Your task to perform on an android device: turn on the 24-hour format for clock Image 0: 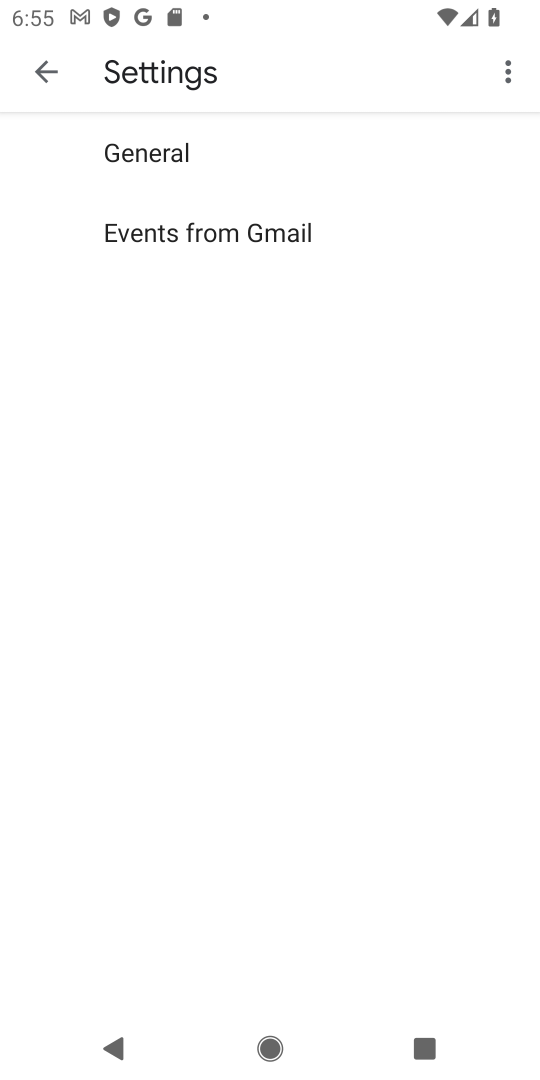
Step 0: click (39, 81)
Your task to perform on an android device: turn on the 24-hour format for clock Image 1: 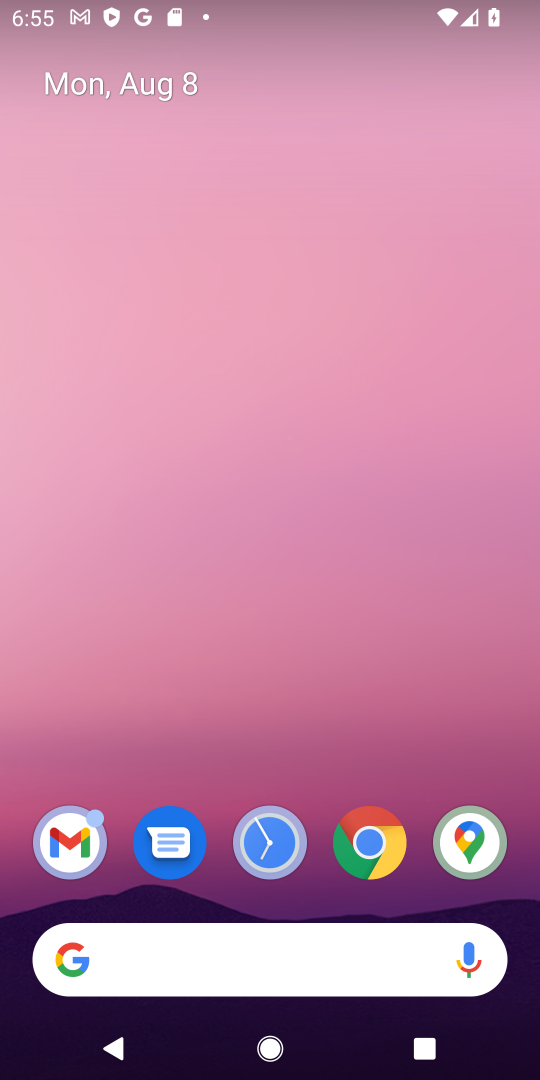
Step 1: drag from (309, 692) to (311, 60)
Your task to perform on an android device: turn on the 24-hour format for clock Image 2: 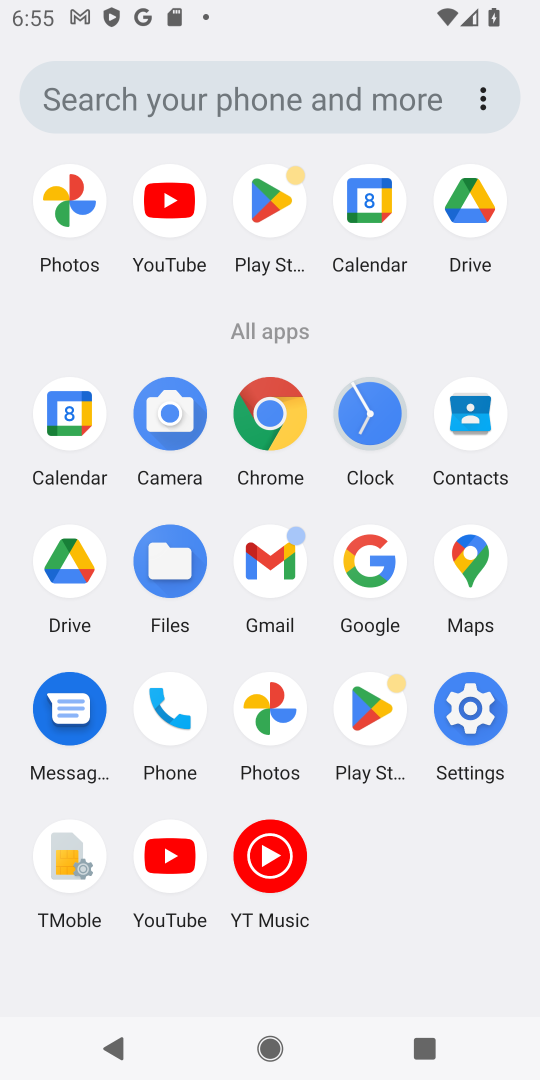
Step 2: click (386, 418)
Your task to perform on an android device: turn on the 24-hour format for clock Image 3: 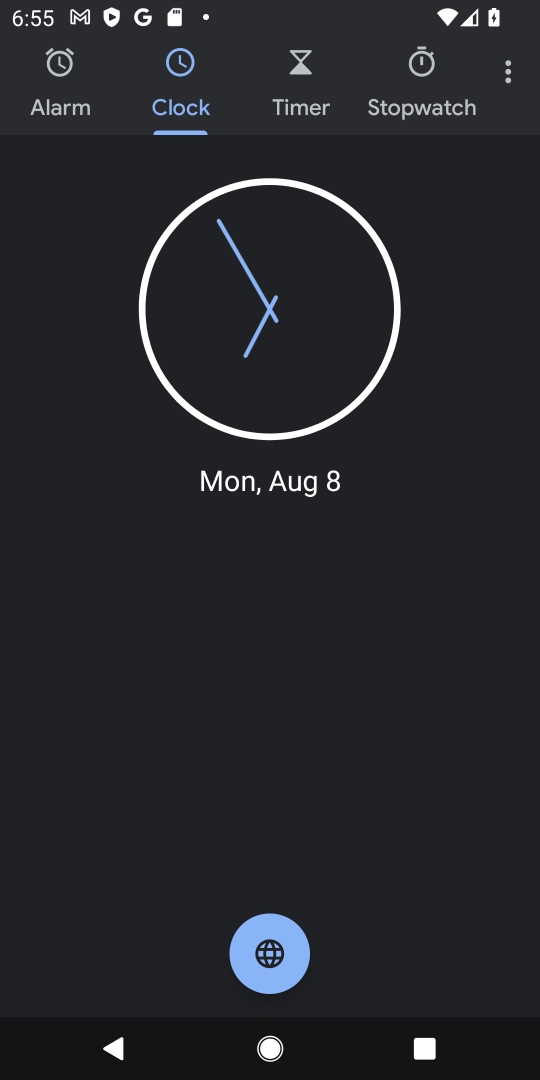
Step 3: click (506, 76)
Your task to perform on an android device: turn on the 24-hour format for clock Image 4: 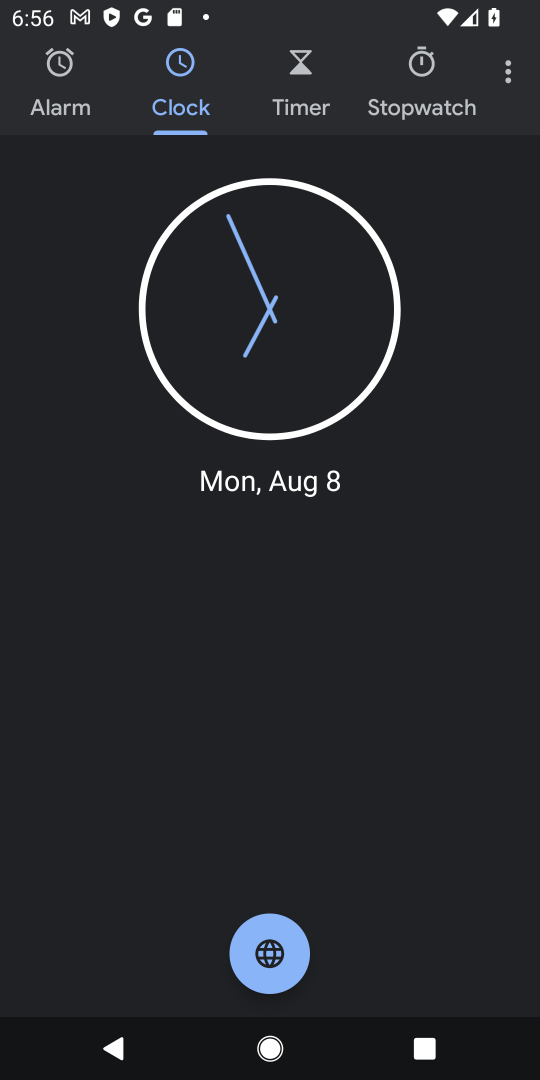
Step 4: click (506, 83)
Your task to perform on an android device: turn on the 24-hour format for clock Image 5: 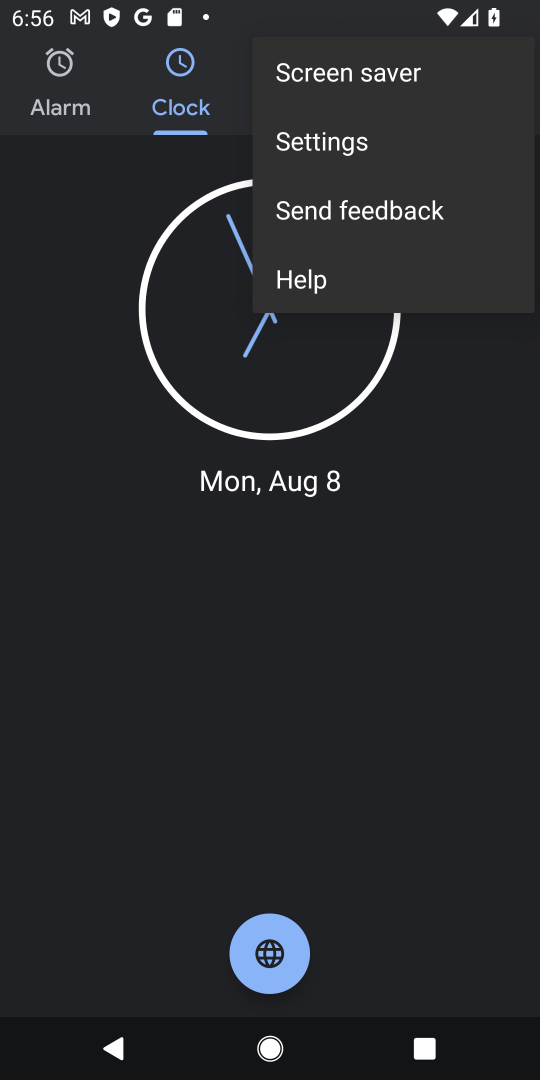
Step 5: click (339, 135)
Your task to perform on an android device: turn on the 24-hour format for clock Image 6: 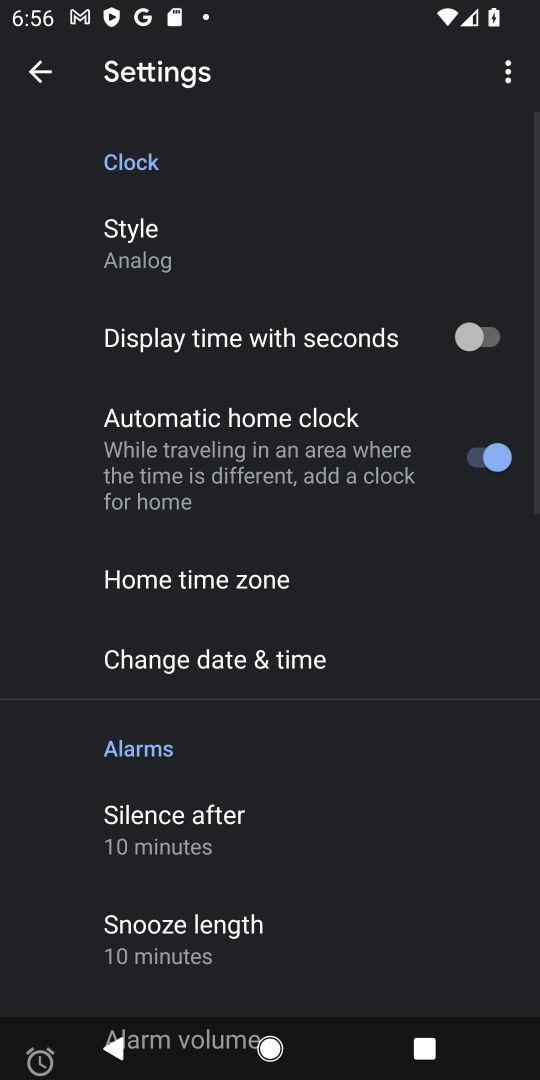
Step 6: drag from (386, 781) to (391, 536)
Your task to perform on an android device: turn on the 24-hour format for clock Image 7: 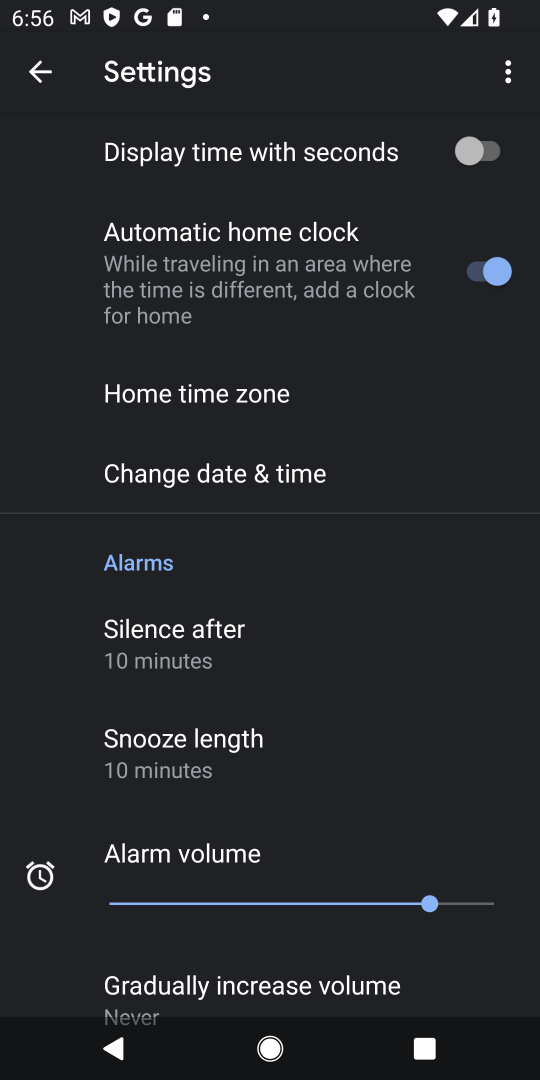
Step 7: drag from (340, 664) to (342, 610)
Your task to perform on an android device: turn on the 24-hour format for clock Image 8: 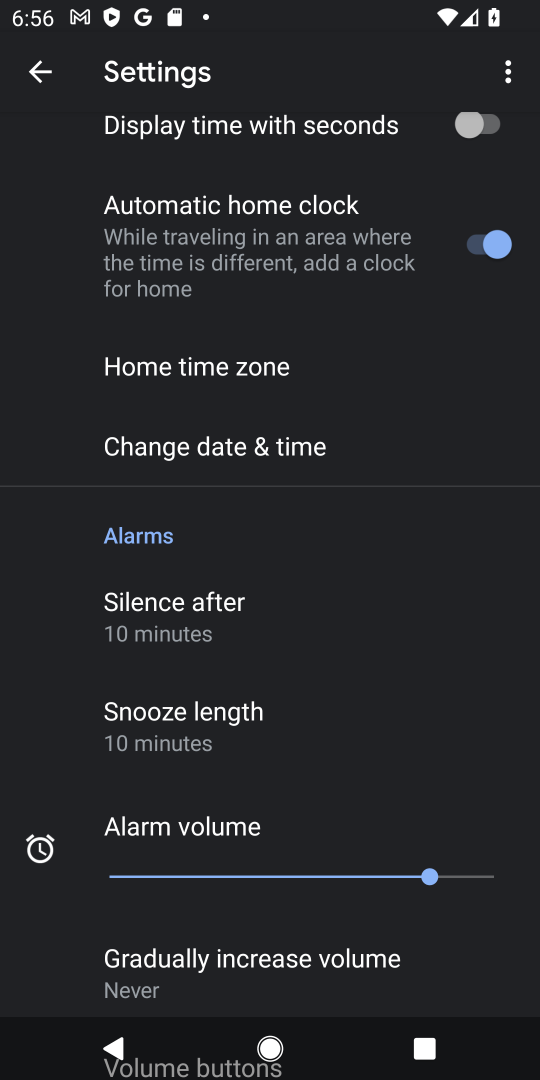
Step 8: click (321, 454)
Your task to perform on an android device: turn on the 24-hour format for clock Image 9: 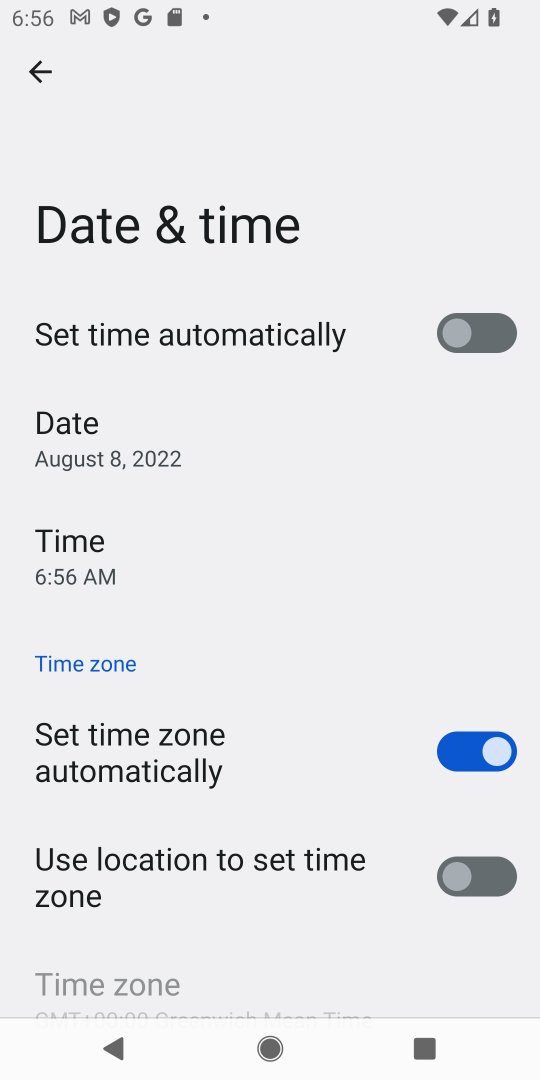
Step 9: drag from (210, 877) to (249, 567)
Your task to perform on an android device: turn on the 24-hour format for clock Image 10: 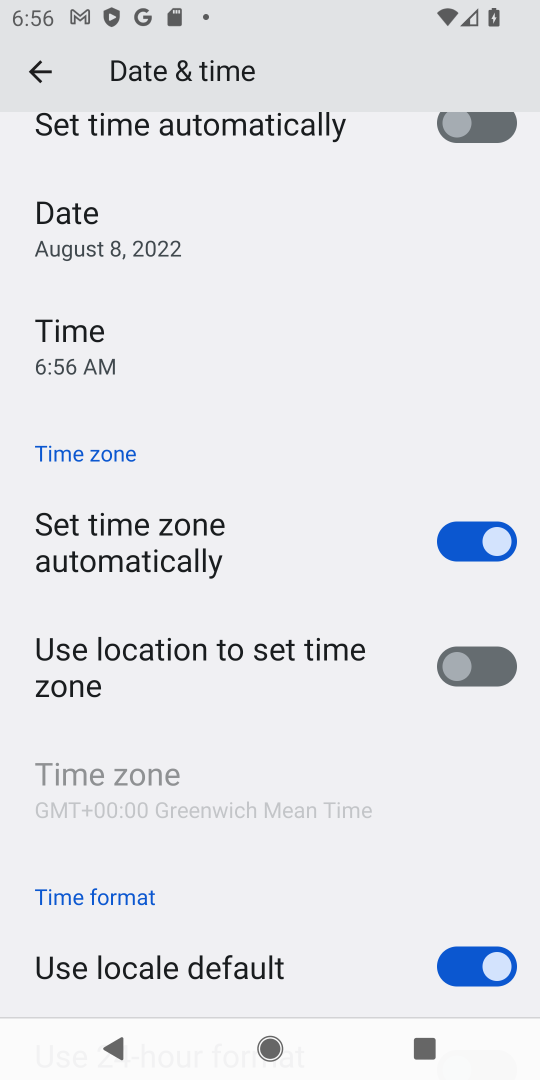
Step 10: drag from (123, 904) to (165, 420)
Your task to perform on an android device: turn on the 24-hour format for clock Image 11: 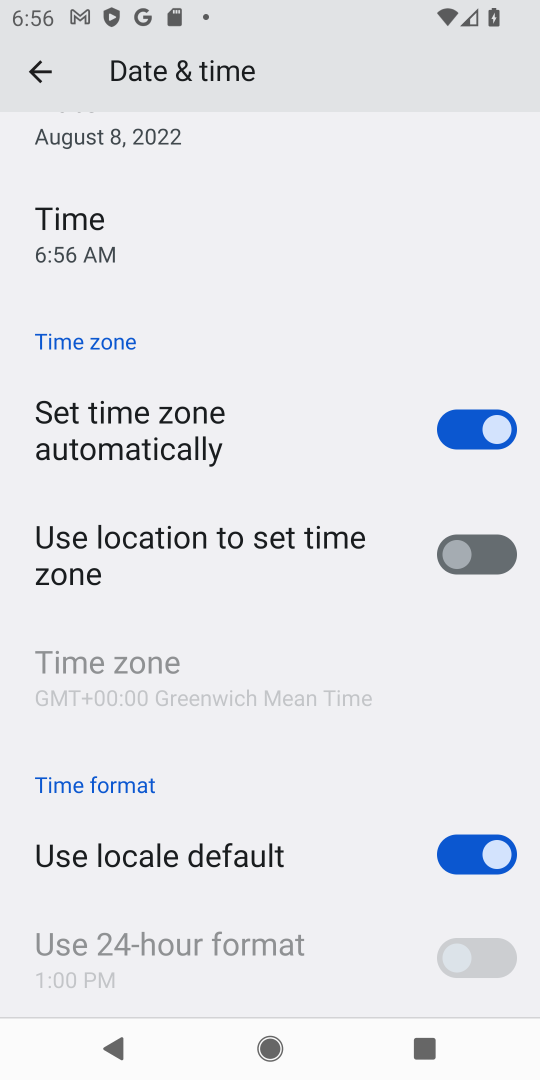
Step 11: drag from (226, 934) to (235, 611)
Your task to perform on an android device: turn on the 24-hour format for clock Image 12: 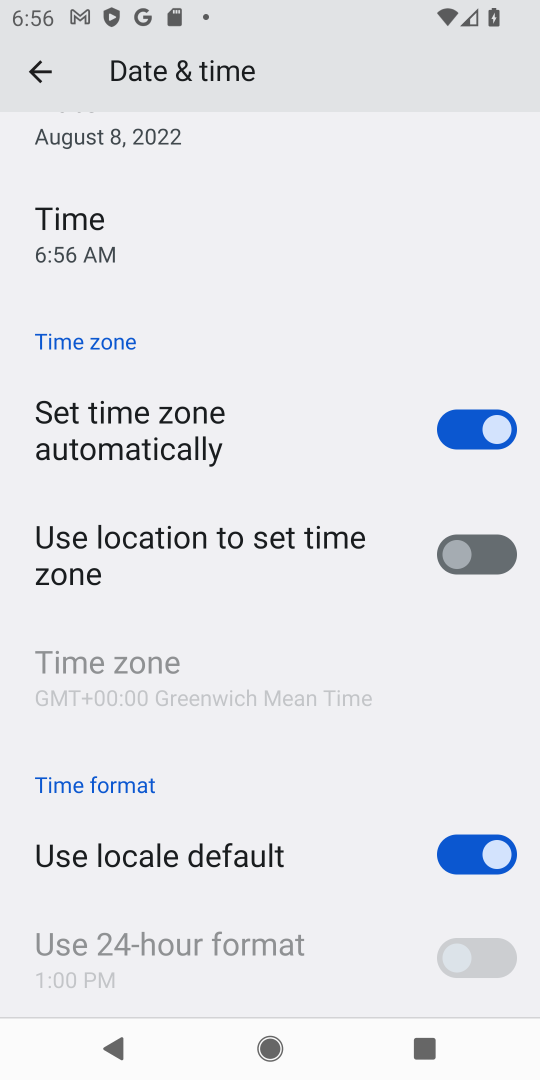
Step 12: click (401, 840)
Your task to perform on an android device: turn on the 24-hour format for clock Image 13: 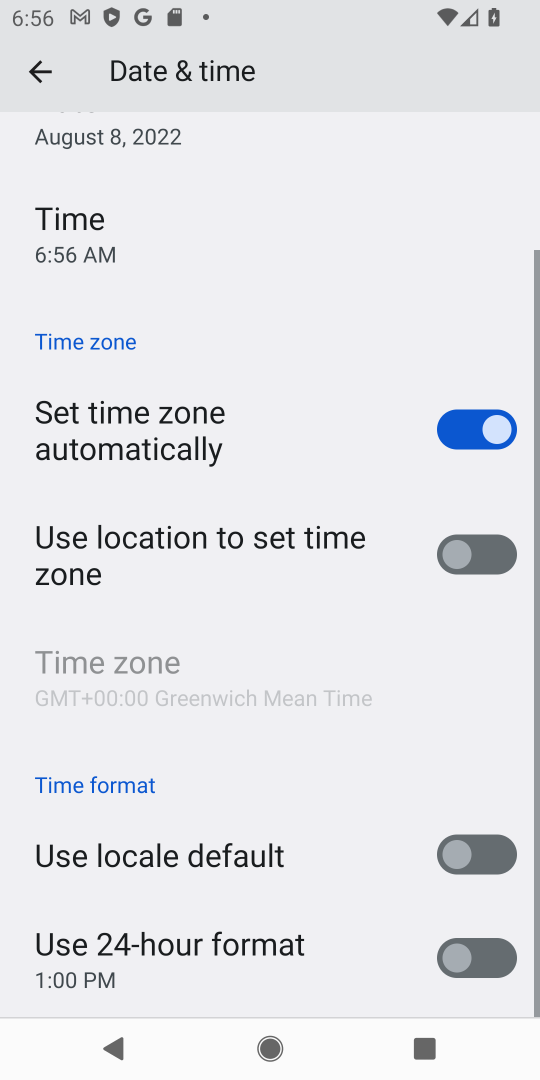
Step 13: click (458, 971)
Your task to perform on an android device: turn on the 24-hour format for clock Image 14: 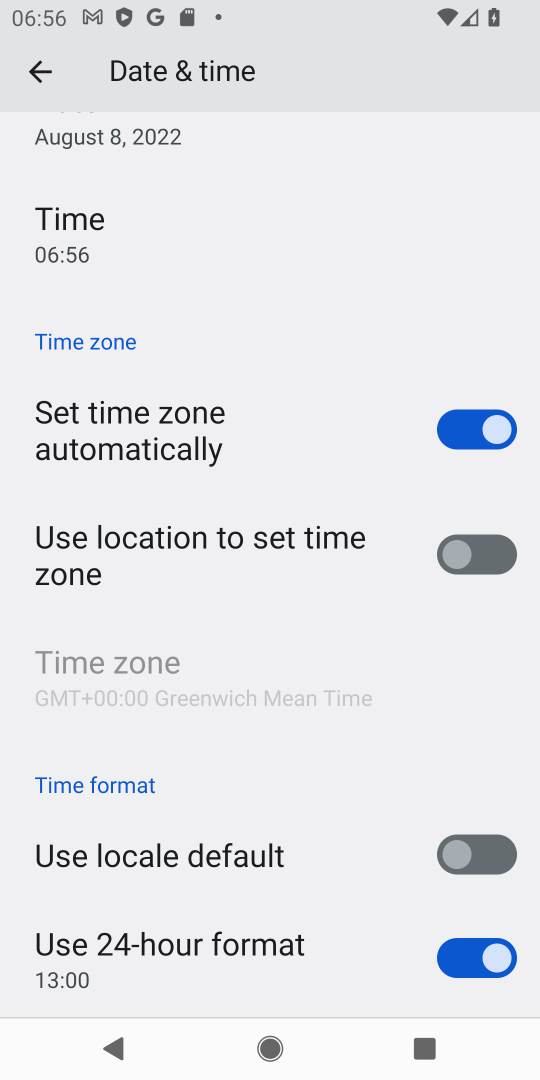
Step 14: task complete